Your task to perform on an android device: install app "HBO Max: Stream TV & Movies" Image 0: 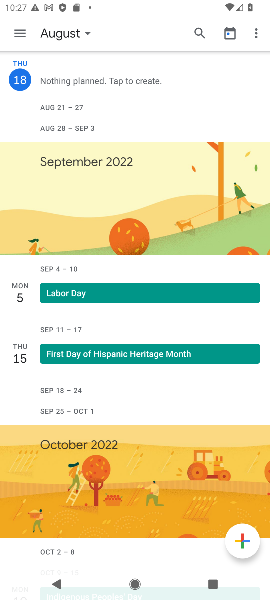
Step 0: press home button
Your task to perform on an android device: install app "HBO Max: Stream TV & Movies" Image 1: 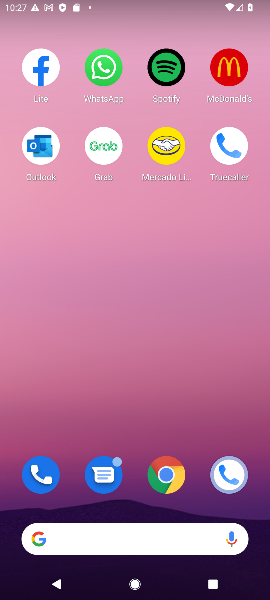
Step 1: drag from (136, 514) to (160, 44)
Your task to perform on an android device: install app "HBO Max: Stream TV & Movies" Image 2: 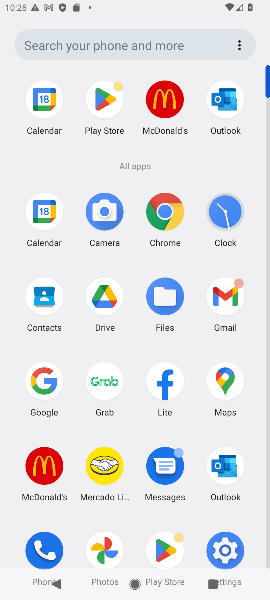
Step 2: click (169, 546)
Your task to perform on an android device: install app "HBO Max: Stream TV & Movies" Image 3: 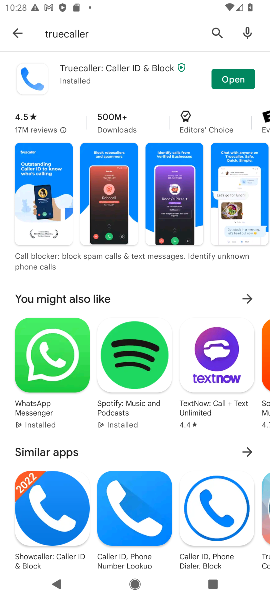
Step 3: click (25, 32)
Your task to perform on an android device: install app "HBO Max: Stream TV & Movies" Image 4: 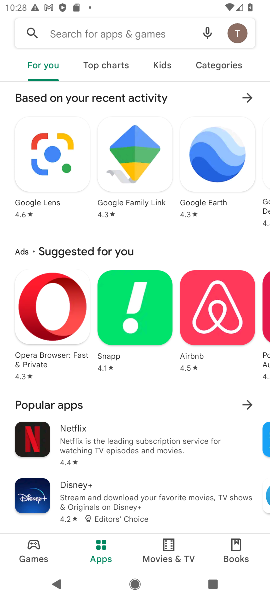
Step 4: click (55, 32)
Your task to perform on an android device: install app "HBO Max: Stream TV & Movies" Image 5: 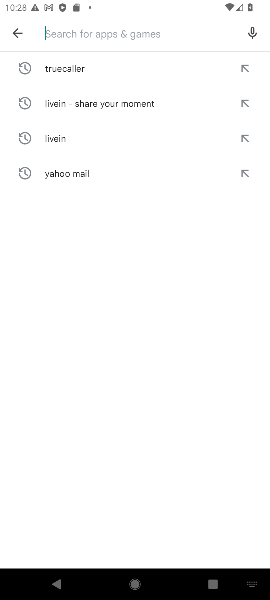
Step 5: type "HBO Max"
Your task to perform on an android device: install app "HBO Max: Stream TV & Movies" Image 6: 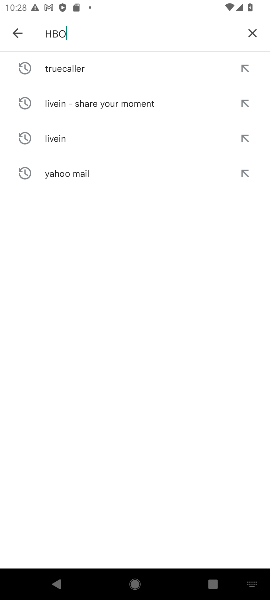
Step 6: type ""
Your task to perform on an android device: install app "HBO Max: Stream TV & Movies" Image 7: 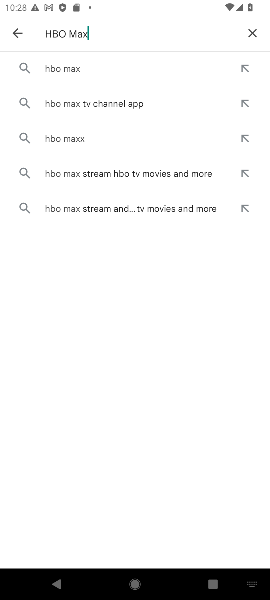
Step 7: click (61, 52)
Your task to perform on an android device: install app "HBO Max: Stream TV & Movies" Image 8: 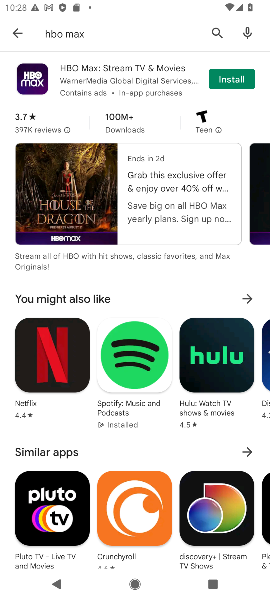
Step 8: click (227, 70)
Your task to perform on an android device: install app "HBO Max: Stream TV & Movies" Image 9: 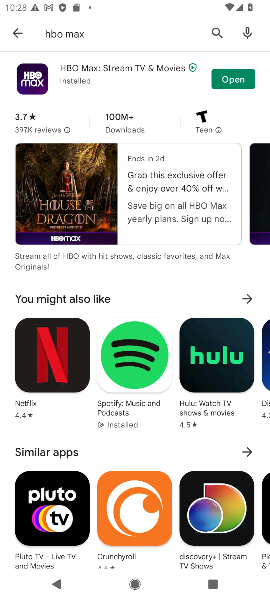
Step 9: click (215, 84)
Your task to perform on an android device: install app "HBO Max: Stream TV & Movies" Image 10: 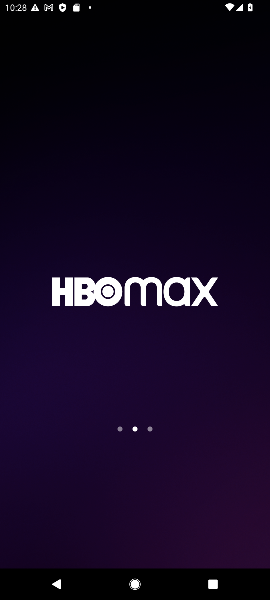
Step 10: task complete